Your task to perform on an android device: find snoozed emails in the gmail app Image 0: 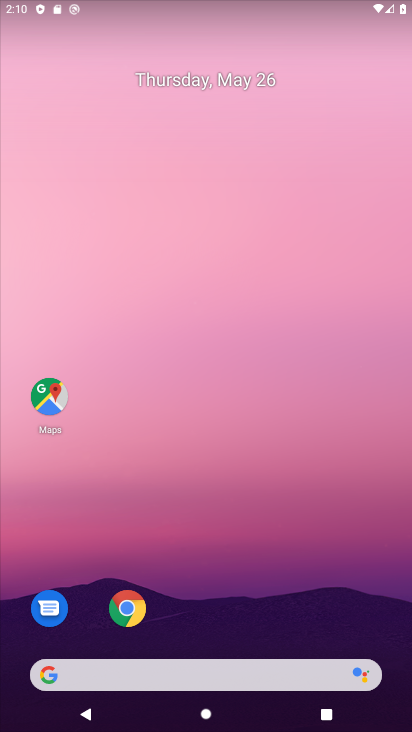
Step 0: drag from (265, 617) to (185, 202)
Your task to perform on an android device: find snoozed emails in the gmail app Image 1: 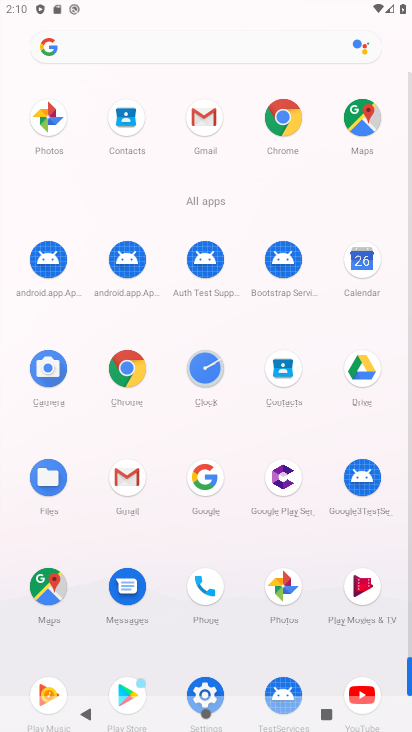
Step 1: click (131, 469)
Your task to perform on an android device: find snoozed emails in the gmail app Image 2: 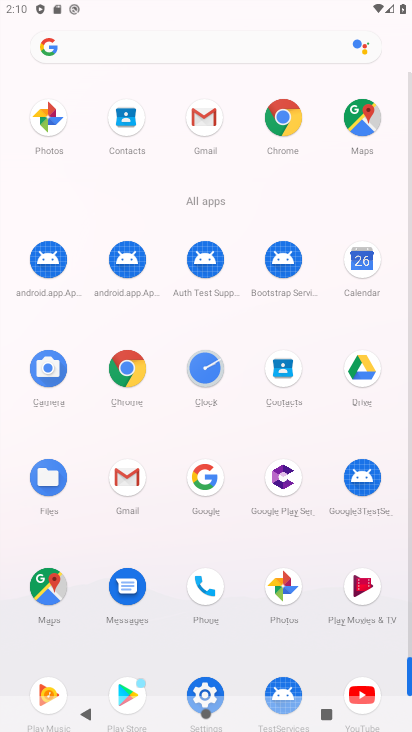
Step 2: click (131, 469)
Your task to perform on an android device: find snoozed emails in the gmail app Image 3: 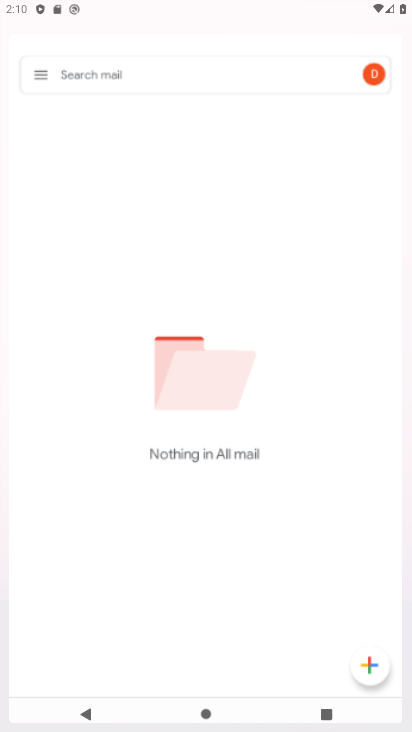
Step 3: click (128, 476)
Your task to perform on an android device: find snoozed emails in the gmail app Image 4: 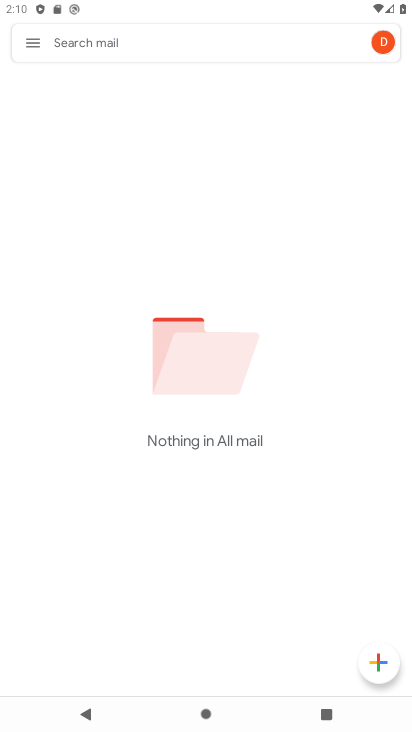
Step 4: click (128, 476)
Your task to perform on an android device: find snoozed emails in the gmail app Image 5: 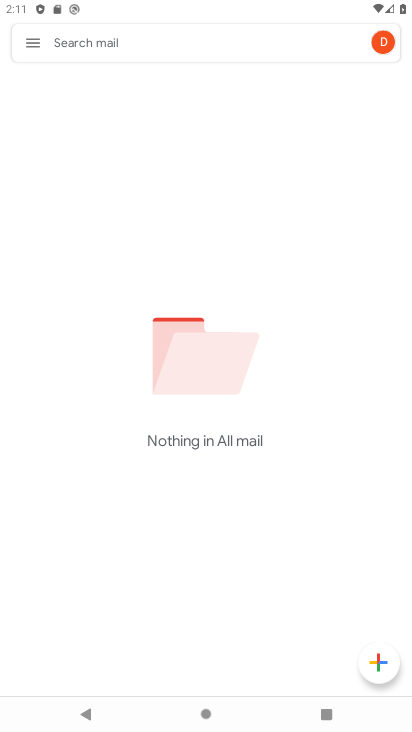
Step 5: press back button
Your task to perform on an android device: find snoozed emails in the gmail app Image 6: 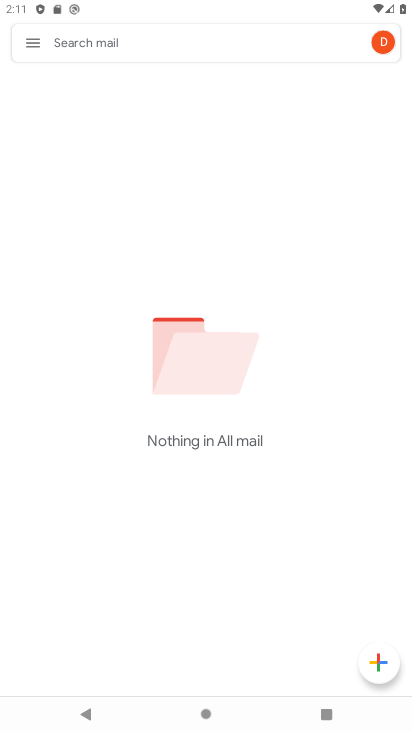
Step 6: press back button
Your task to perform on an android device: find snoozed emails in the gmail app Image 7: 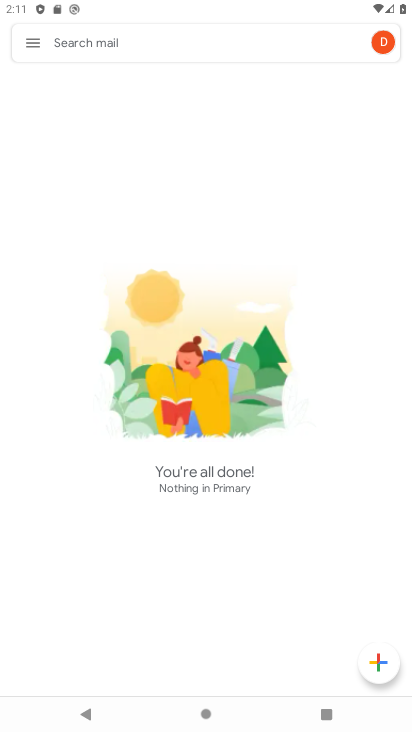
Step 7: press back button
Your task to perform on an android device: find snoozed emails in the gmail app Image 8: 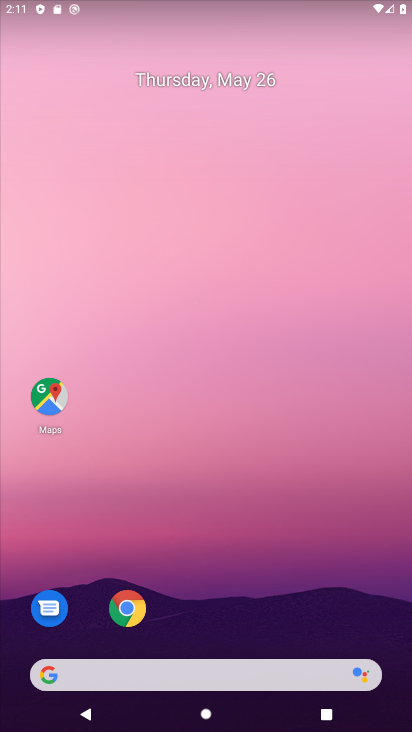
Step 8: drag from (270, 554) to (213, 202)
Your task to perform on an android device: find snoozed emails in the gmail app Image 9: 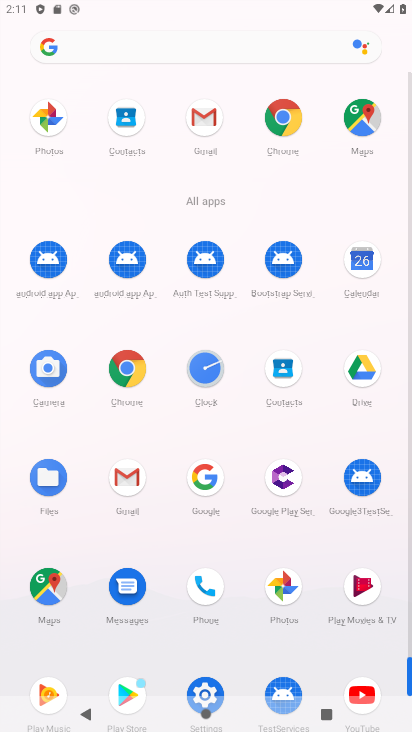
Step 9: click (125, 470)
Your task to perform on an android device: find snoozed emails in the gmail app Image 10: 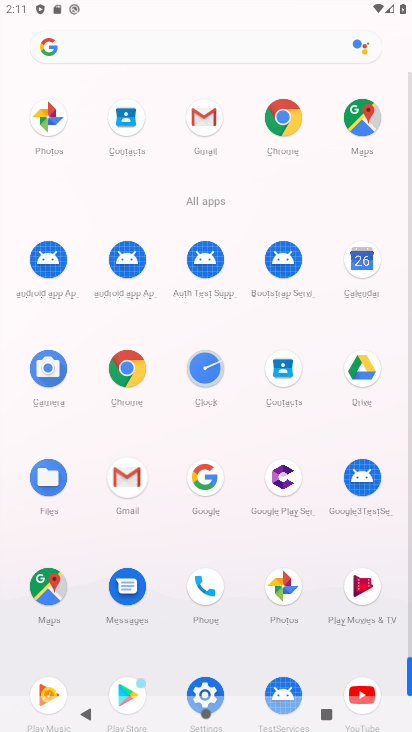
Step 10: click (125, 470)
Your task to perform on an android device: find snoozed emails in the gmail app Image 11: 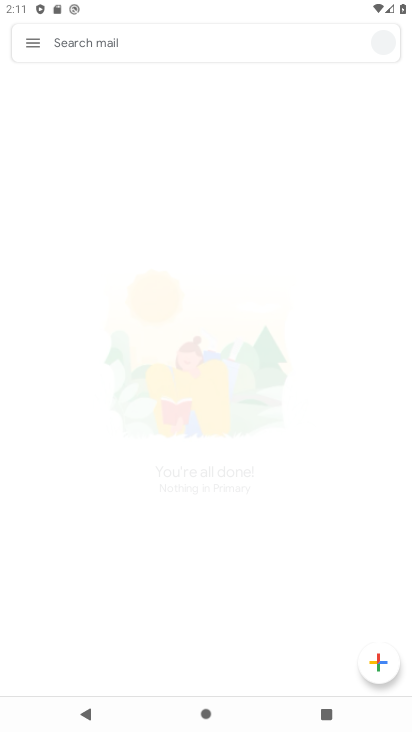
Step 11: click (131, 474)
Your task to perform on an android device: find snoozed emails in the gmail app Image 12: 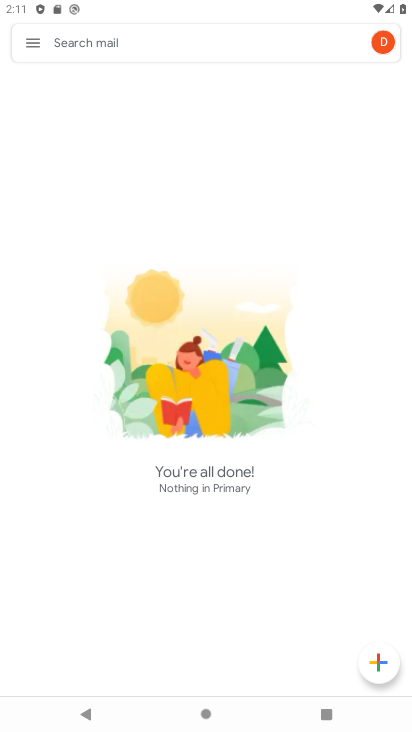
Step 12: click (38, 44)
Your task to perform on an android device: find snoozed emails in the gmail app Image 13: 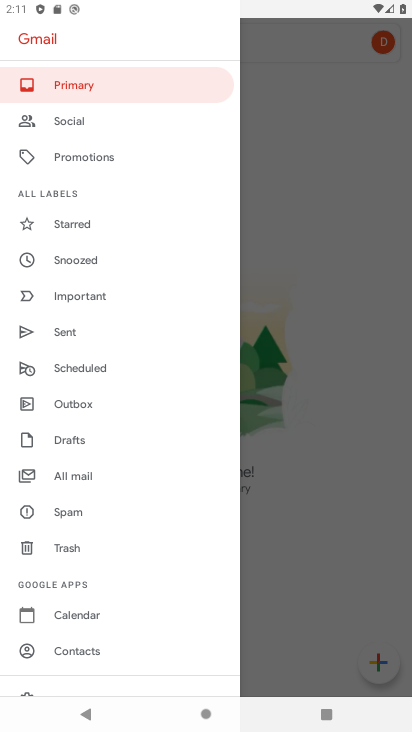
Step 13: drag from (87, 614) to (22, 162)
Your task to perform on an android device: find snoozed emails in the gmail app Image 14: 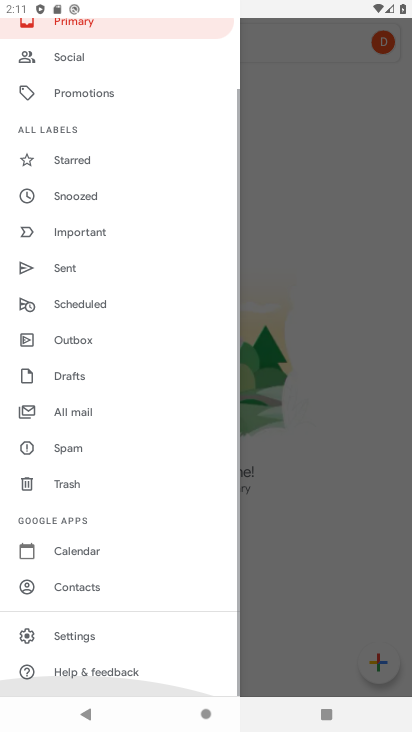
Step 14: drag from (150, 528) to (108, 69)
Your task to perform on an android device: find snoozed emails in the gmail app Image 15: 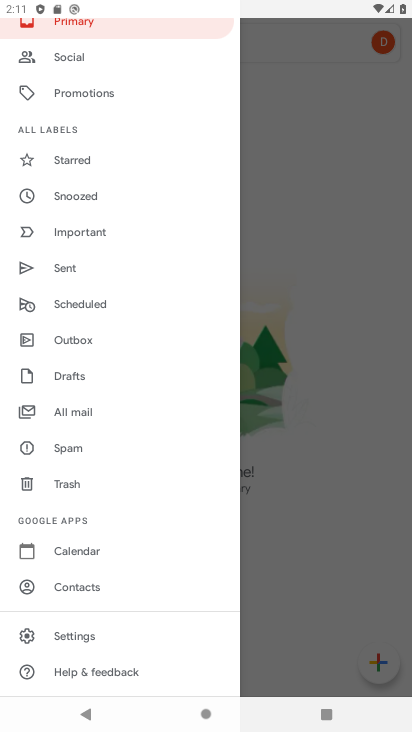
Step 15: click (71, 188)
Your task to perform on an android device: find snoozed emails in the gmail app Image 16: 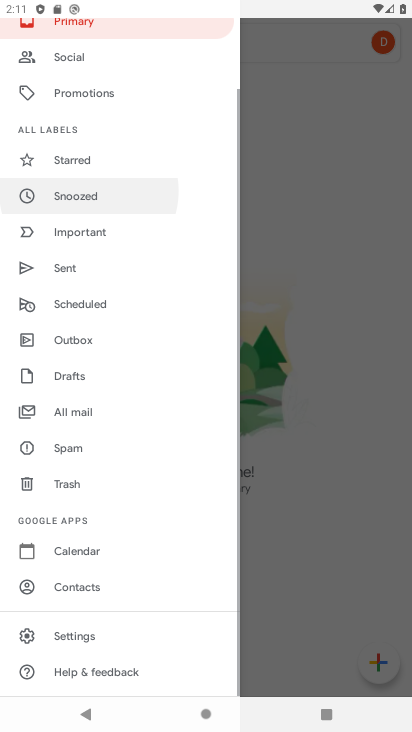
Step 16: click (73, 191)
Your task to perform on an android device: find snoozed emails in the gmail app Image 17: 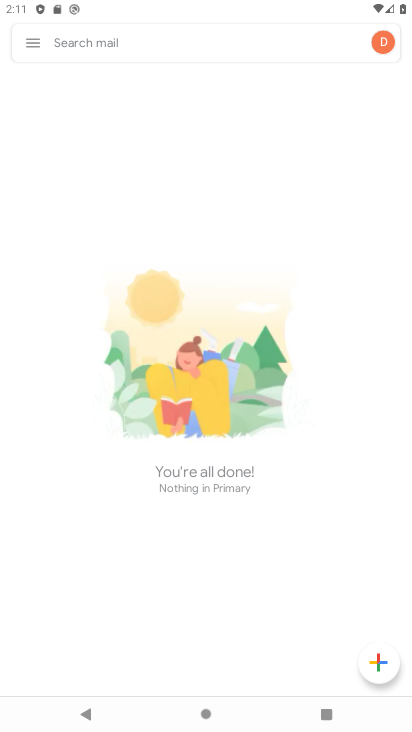
Step 17: click (75, 192)
Your task to perform on an android device: find snoozed emails in the gmail app Image 18: 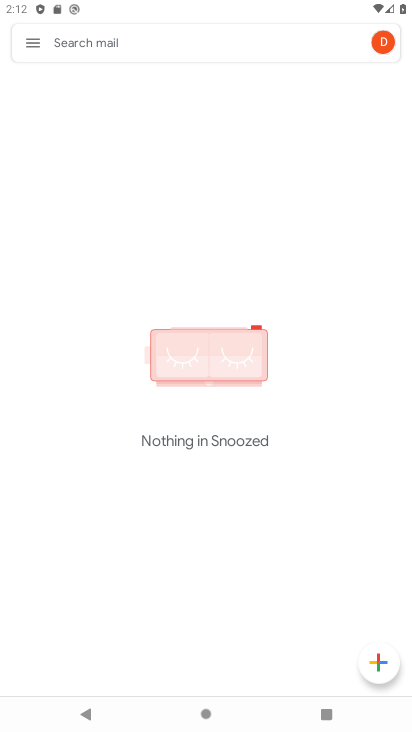
Step 18: task complete